Your task to perform on an android device: search for starred emails in the gmail app Image 0: 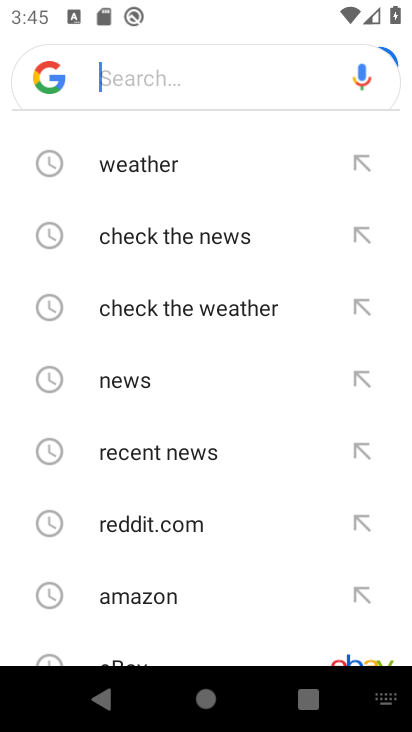
Step 0: press home button
Your task to perform on an android device: search for starred emails in the gmail app Image 1: 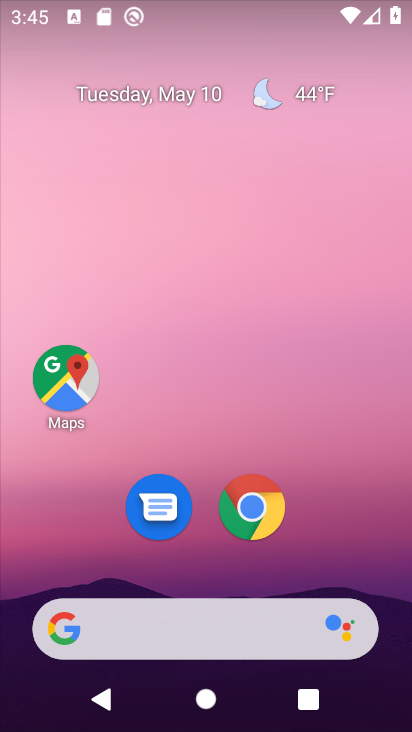
Step 1: drag from (170, 588) to (229, 160)
Your task to perform on an android device: search for starred emails in the gmail app Image 2: 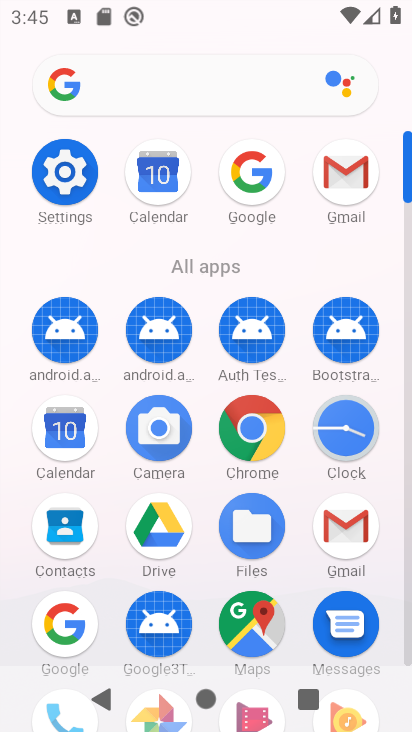
Step 2: click (351, 187)
Your task to perform on an android device: search for starred emails in the gmail app Image 3: 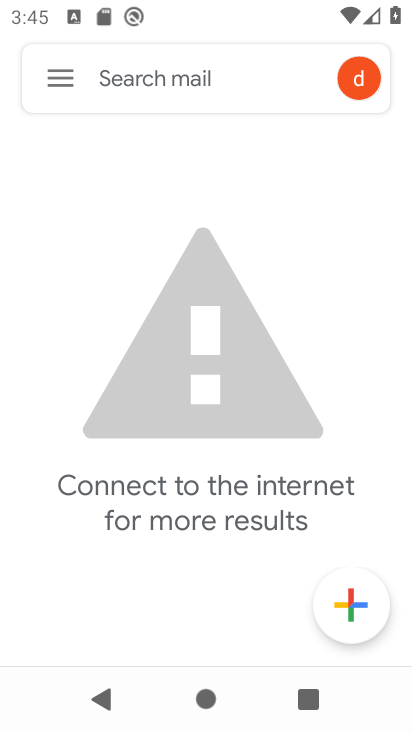
Step 3: click (54, 87)
Your task to perform on an android device: search for starred emails in the gmail app Image 4: 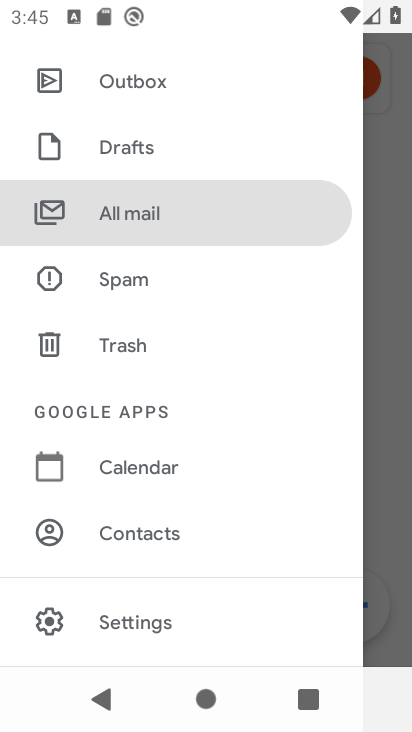
Step 4: drag from (184, 144) to (187, 537)
Your task to perform on an android device: search for starred emails in the gmail app Image 5: 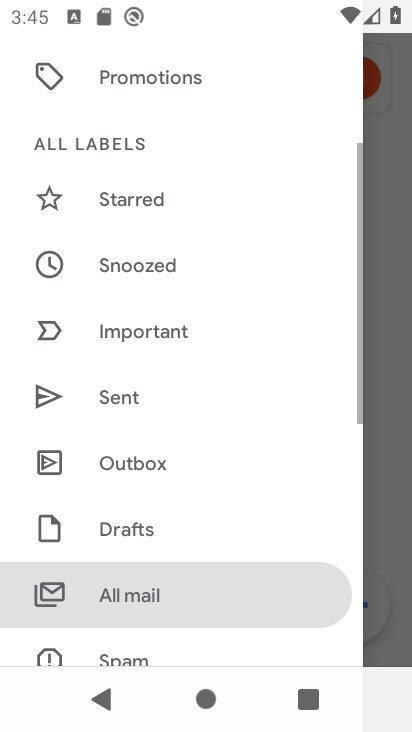
Step 5: click (149, 206)
Your task to perform on an android device: search for starred emails in the gmail app Image 6: 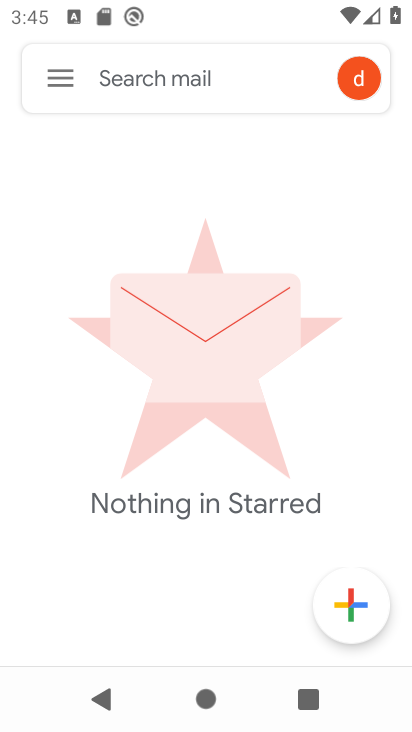
Step 6: task complete